Your task to perform on an android device: refresh tabs in the chrome app Image 0: 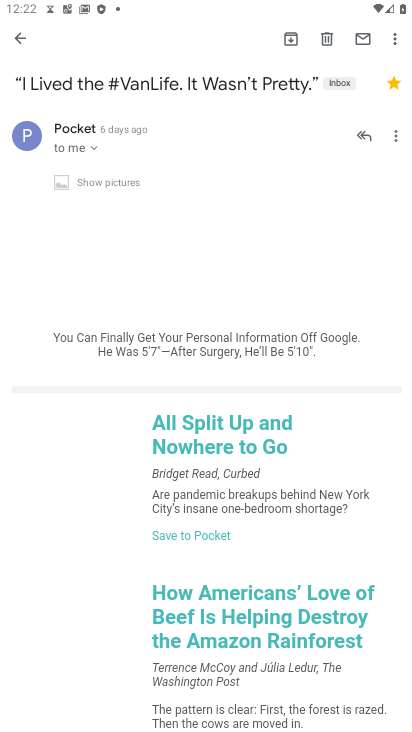
Step 0: press back button
Your task to perform on an android device: refresh tabs in the chrome app Image 1: 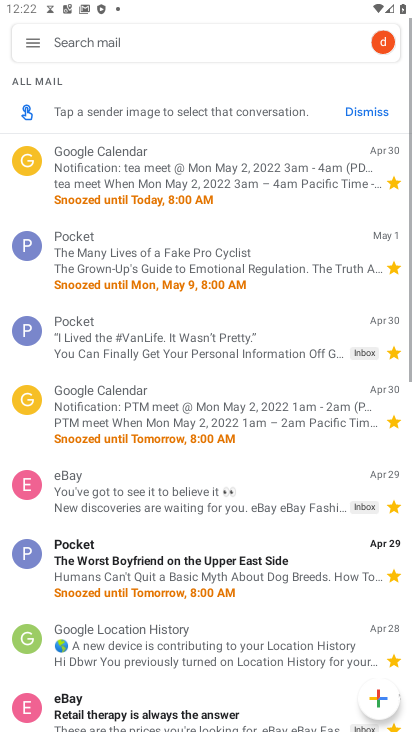
Step 1: press back button
Your task to perform on an android device: refresh tabs in the chrome app Image 2: 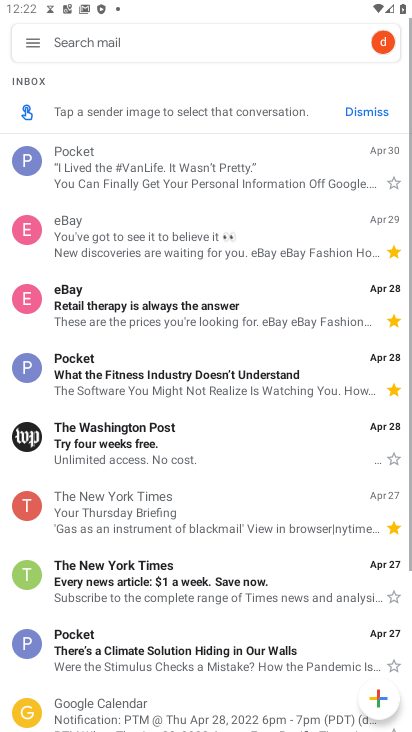
Step 2: press home button
Your task to perform on an android device: refresh tabs in the chrome app Image 3: 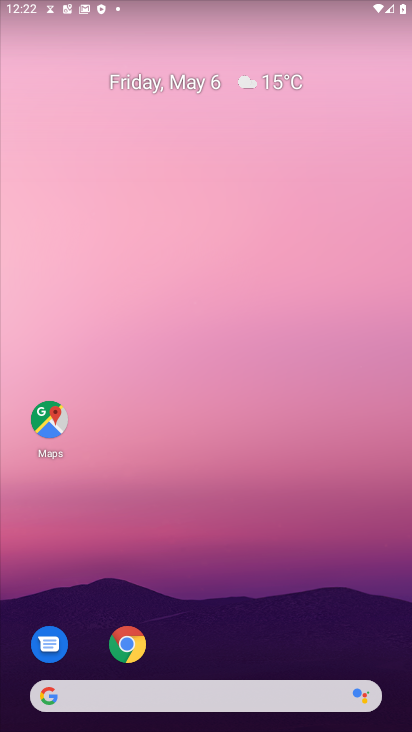
Step 3: drag from (282, 576) to (274, 8)
Your task to perform on an android device: refresh tabs in the chrome app Image 4: 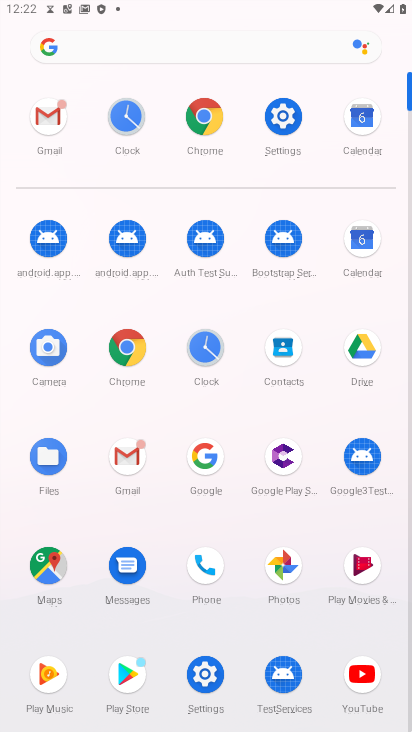
Step 4: drag from (1, 577) to (0, 301)
Your task to perform on an android device: refresh tabs in the chrome app Image 5: 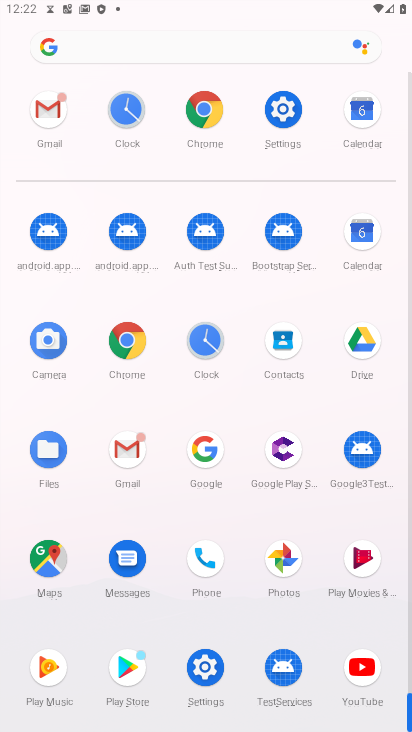
Step 5: click (124, 336)
Your task to perform on an android device: refresh tabs in the chrome app Image 6: 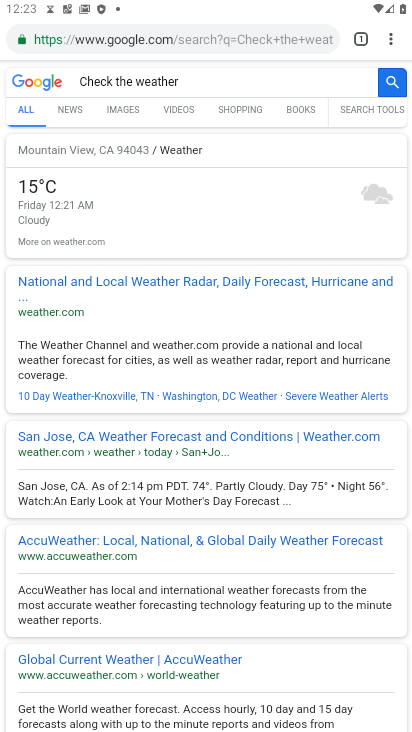
Step 6: click (175, 38)
Your task to perform on an android device: refresh tabs in the chrome app Image 7: 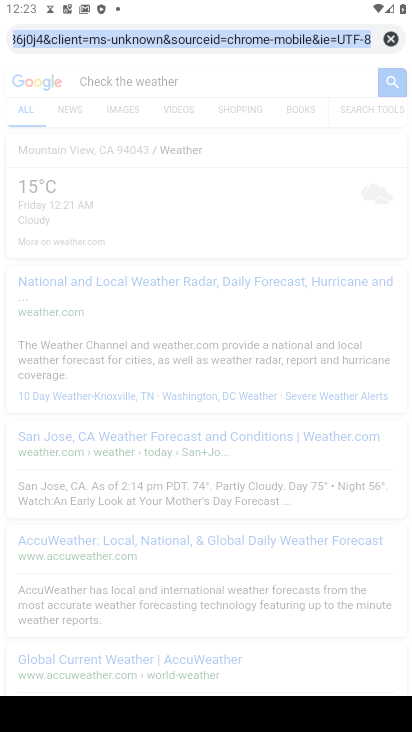
Step 7: click (388, 41)
Your task to perform on an android device: refresh tabs in the chrome app Image 8: 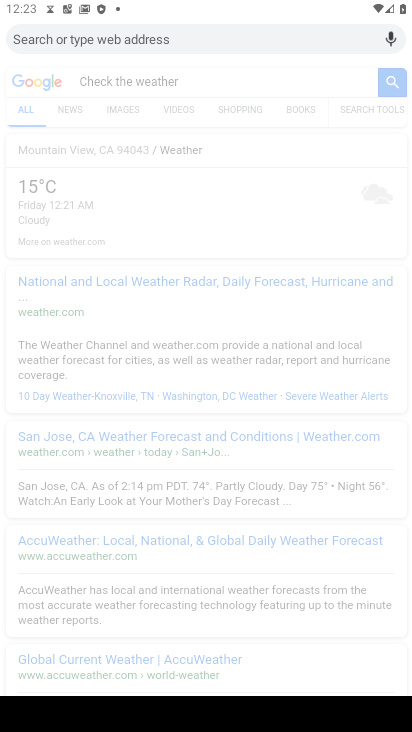
Step 8: press back button
Your task to perform on an android device: refresh tabs in the chrome app Image 9: 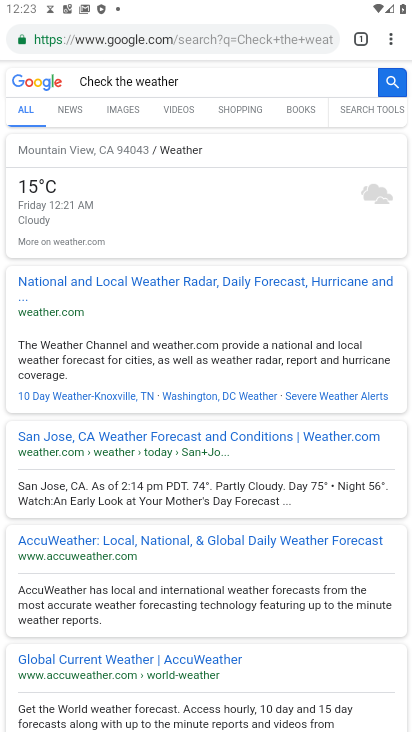
Step 9: click (386, 32)
Your task to perform on an android device: refresh tabs in the chrome app Image 10: 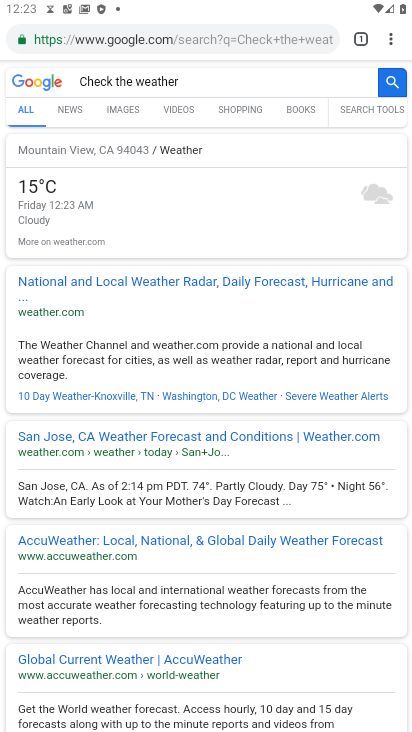
Step 10: task complete